Your task to perform on an android device: Open Google Chrome Image 0: 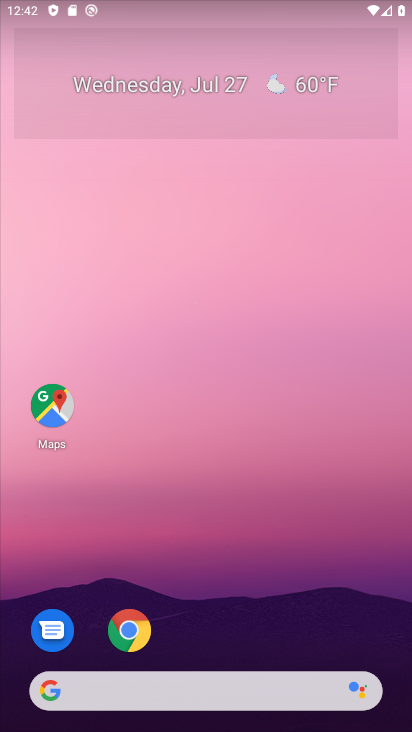
Step 0: press home button
Your task to perform on an android device: Open Google Chrome Image 1: 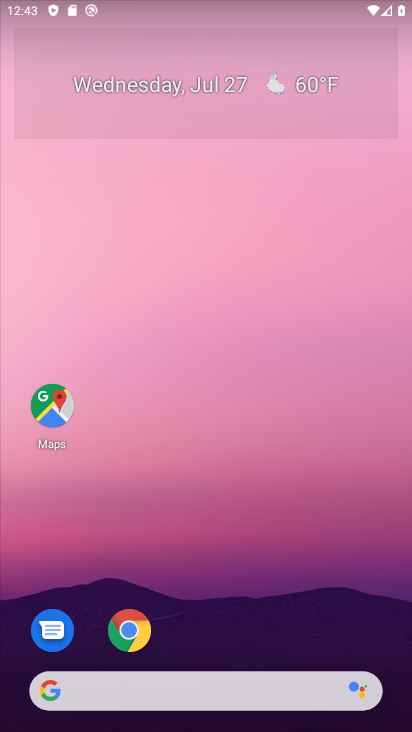
Step 1: drag from (246, 655) to (240, 151)
Your task to perform on an android device: Open Google Chrome Image 2: 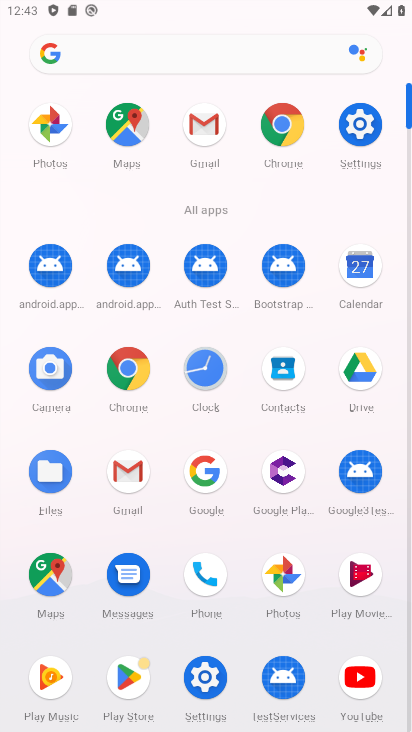
Step 2: click (282, 124)
Your task to perform on an android device: Open Google Chrome Image 3: 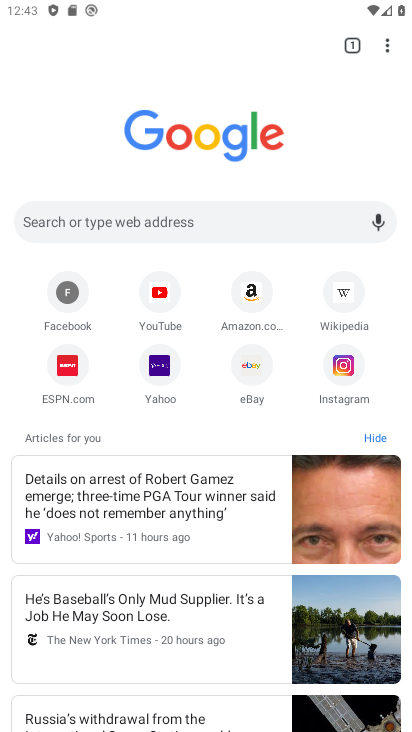
Step 3: task complete